Your task to perform on an android device: uninstall "McDonald's" Image 0: 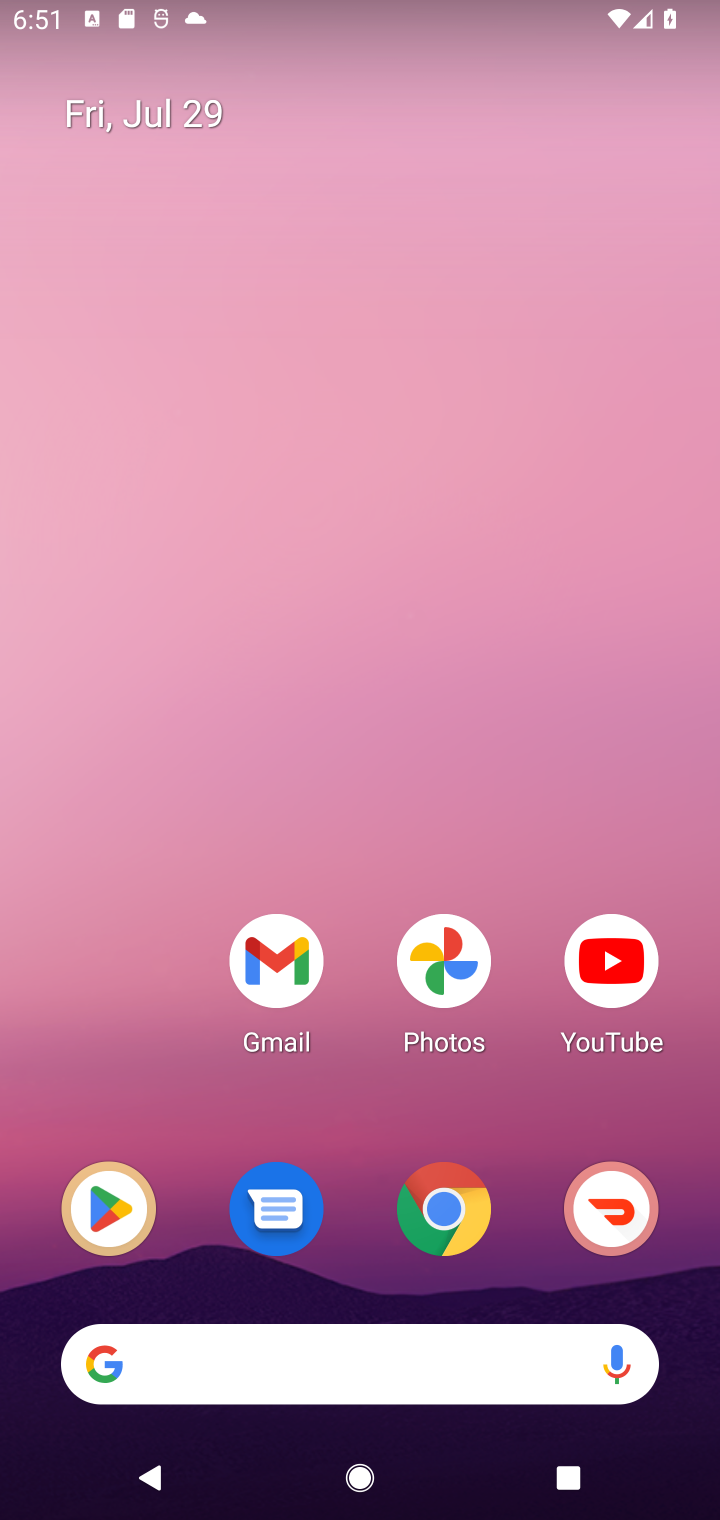
Step 0: click (122, 1196)
Your task to perform on an android device: uninstall "McDonald's" Image 1: 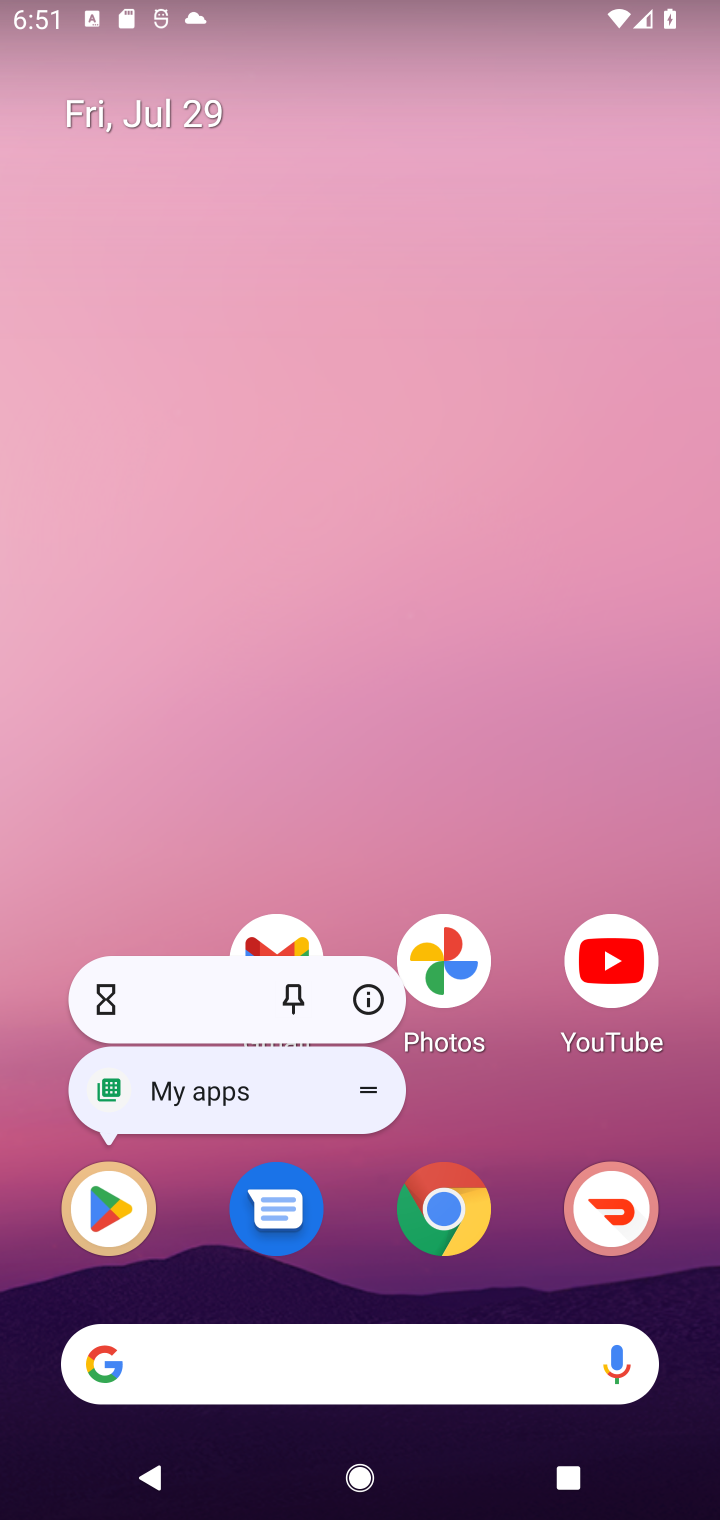
Step 1: click (122, 1181)
Your task to perform on an android device: uninstall "McDonald's" Image 2: 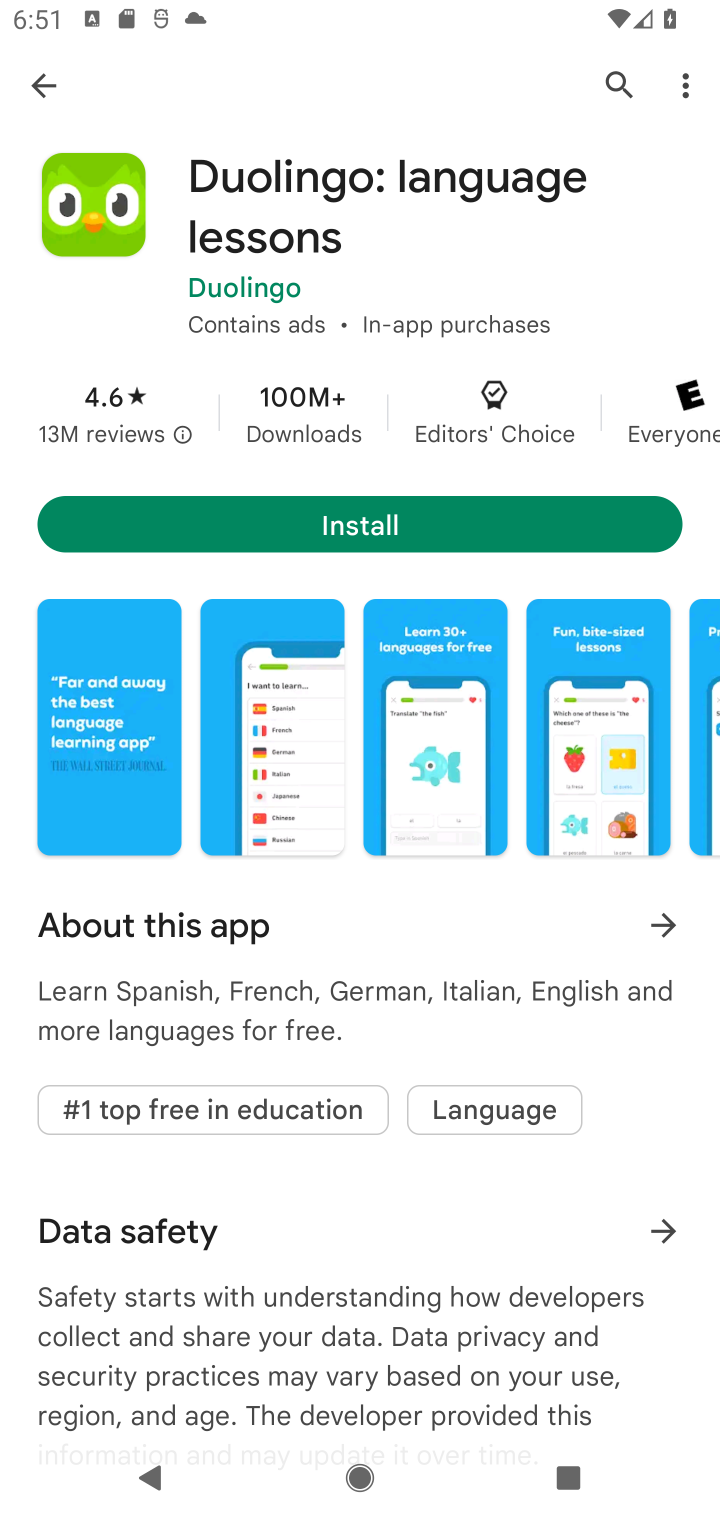
Step 2: click (614, 84)
Your task to perform on an android device: uninstall "McDonald's" Image 3: 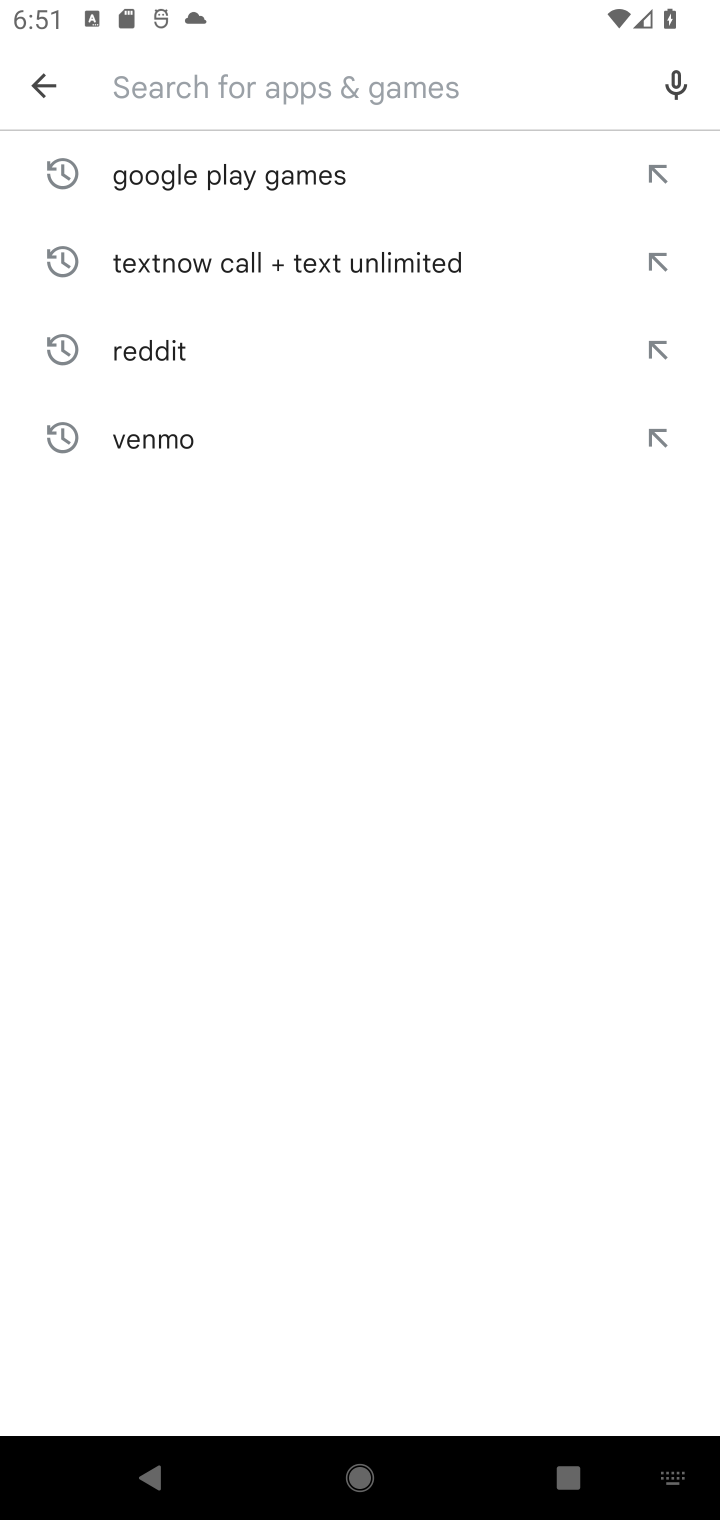
Step 3: click (499, 100)
Your task to perform on an android device: uninstall "McDonald's" Image 4: 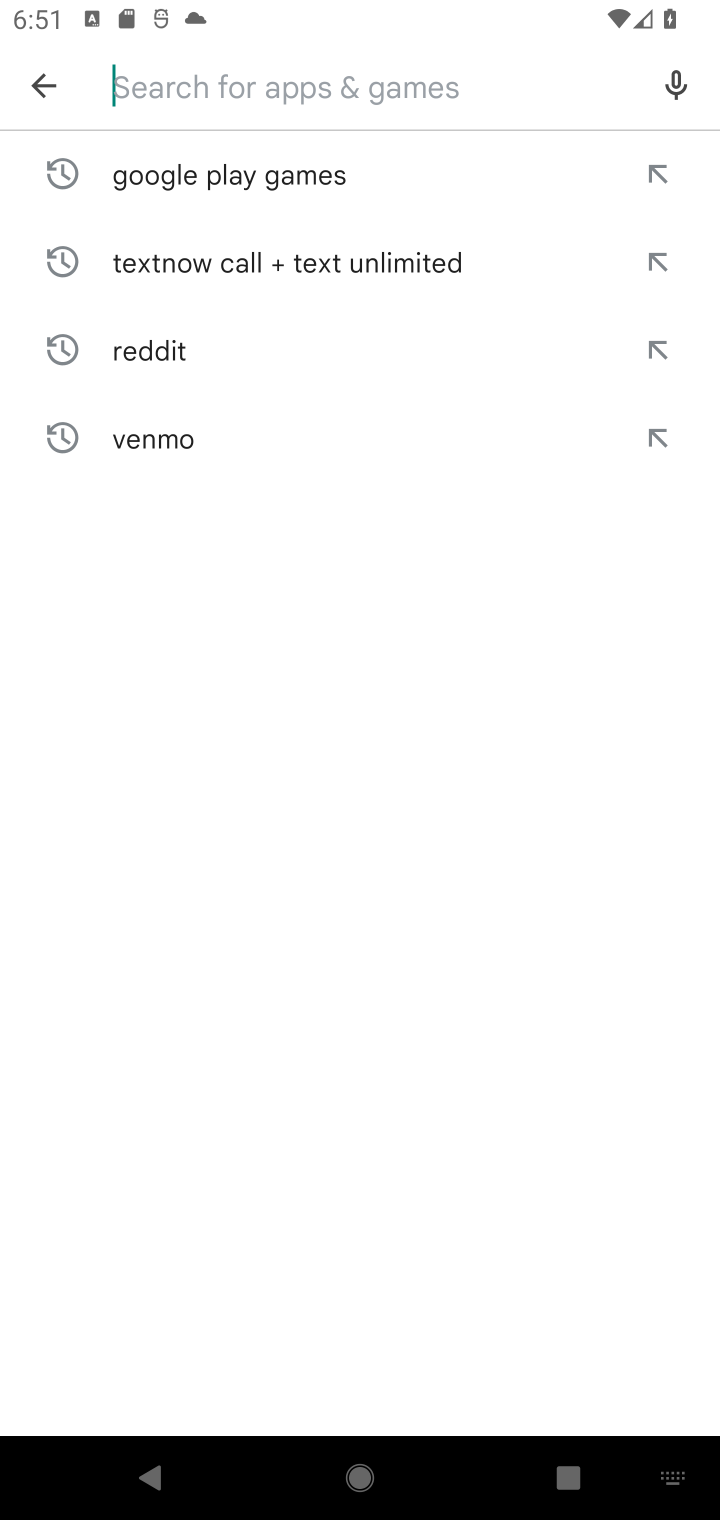
Step 4: type "McDonald's"
Your task to perform on an android device: uninstall "McDonald's" Image 5: 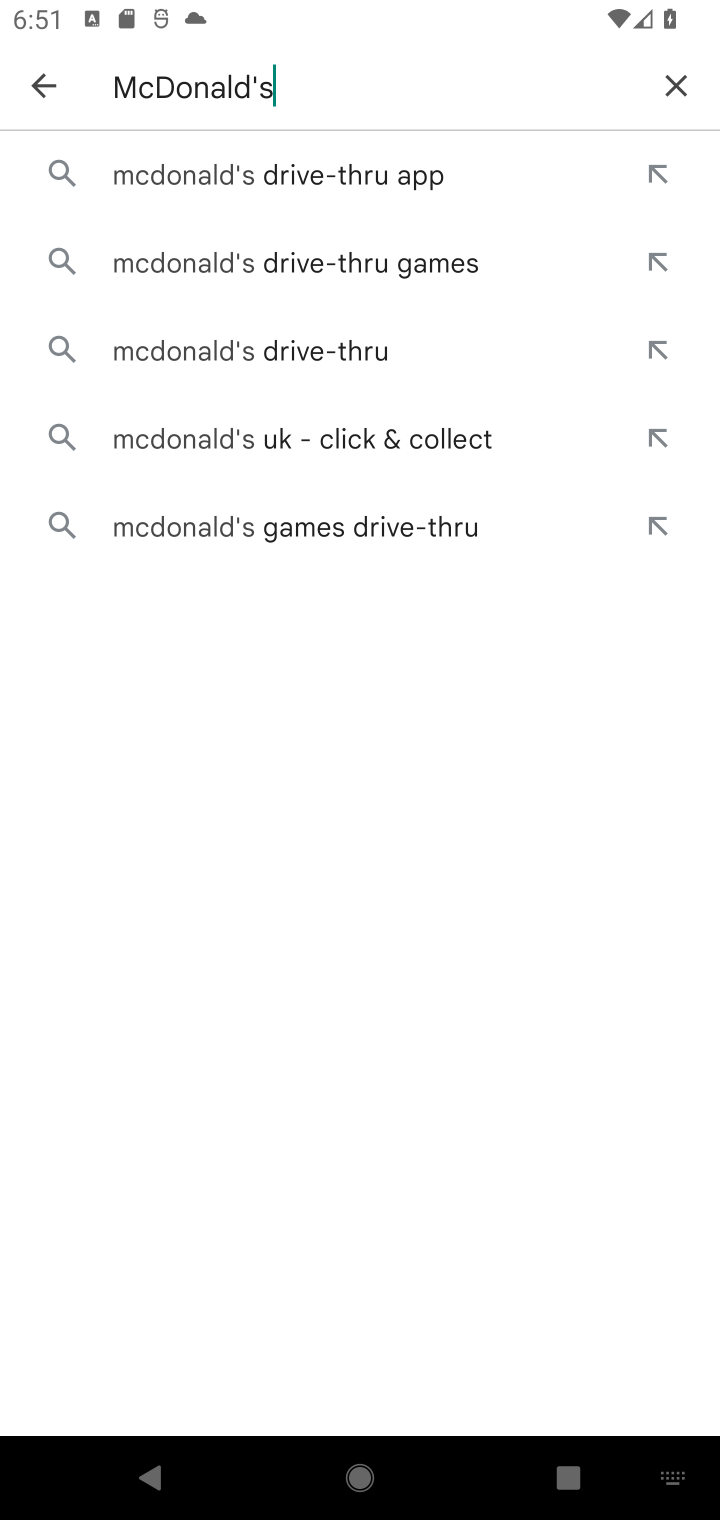
Step 5: click (188, 172)
Your task to perform on an android device: uninstall "McDonald's" Image 6: 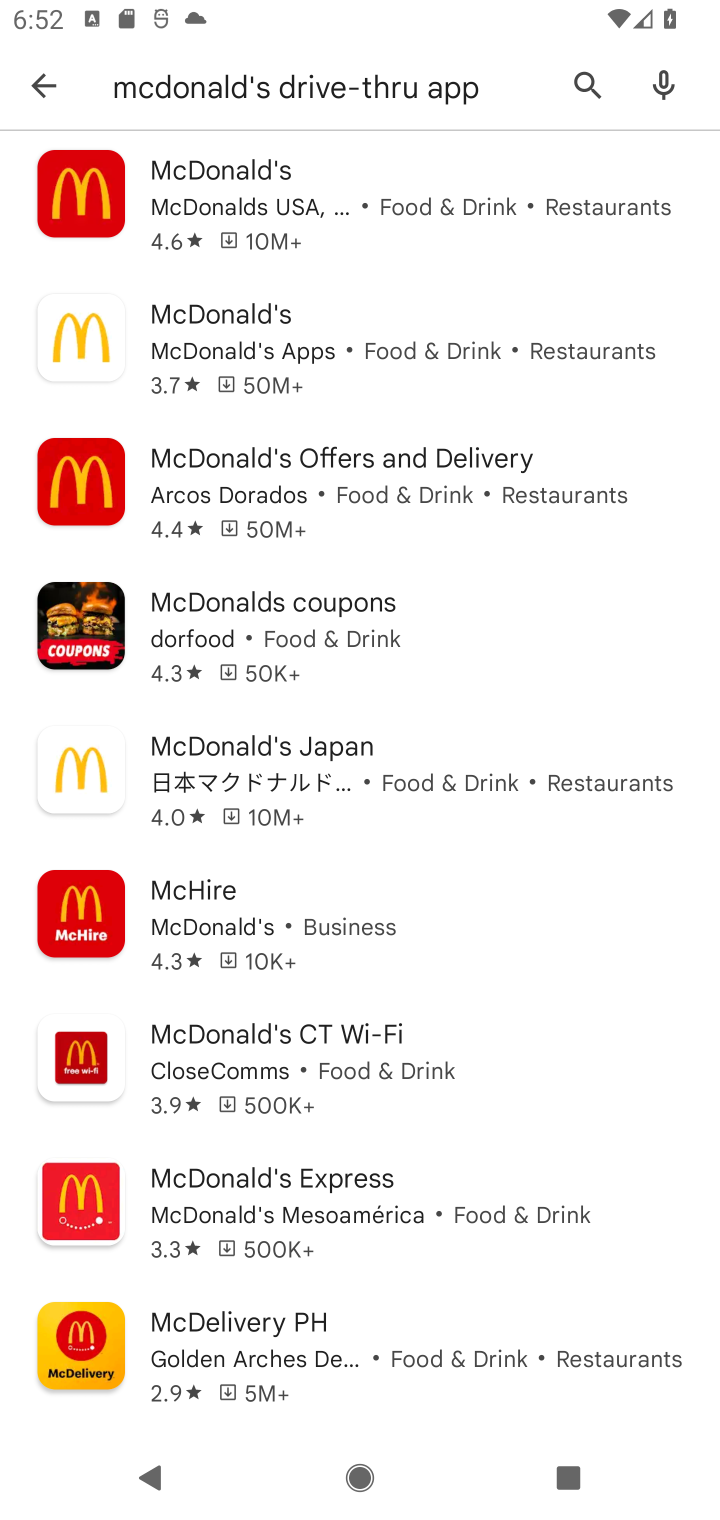
Step 6: click (169, 202)
Your task to perform on an android device: uninstall "McDonald's" Image 7: 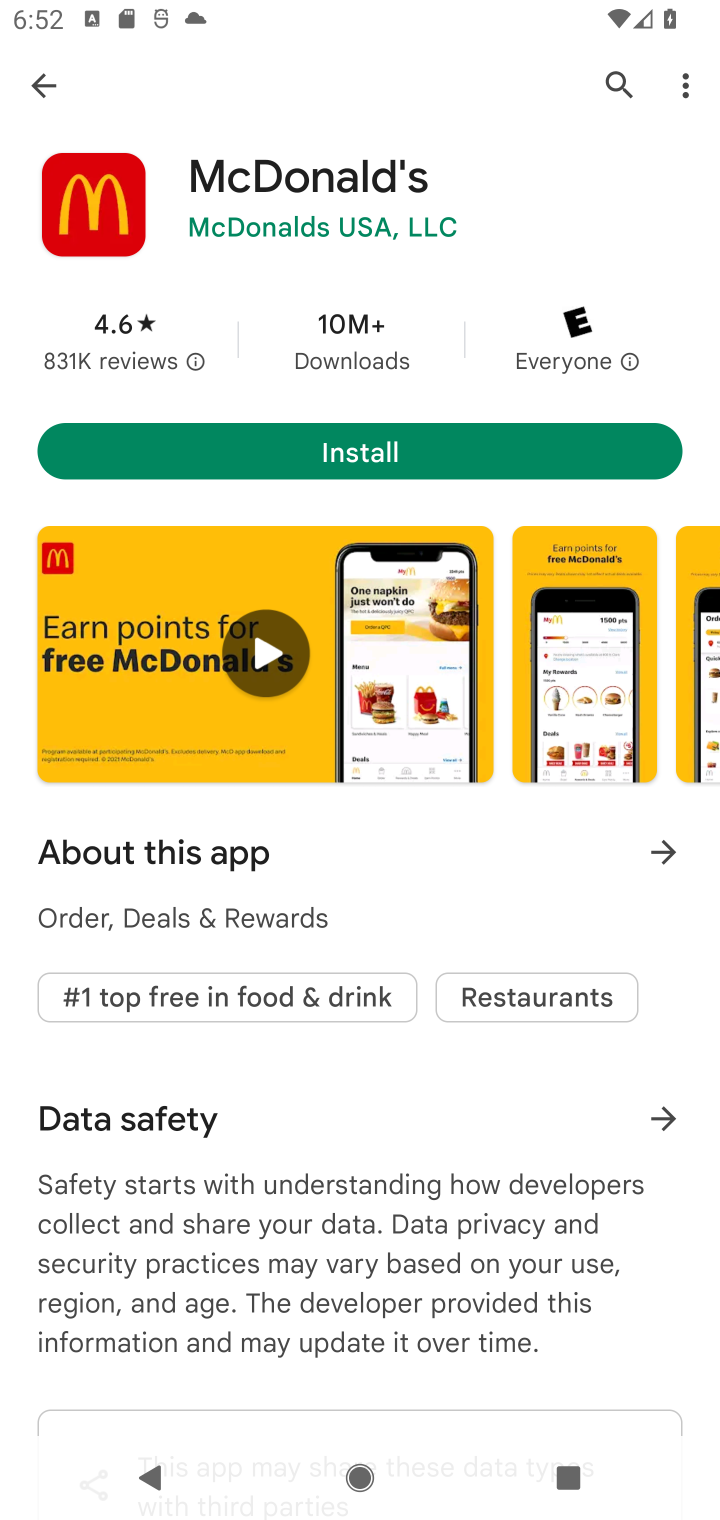
Step 7: task complete